Your task to perform on an android device: toggle notifications settings in the gmail app Image 0: 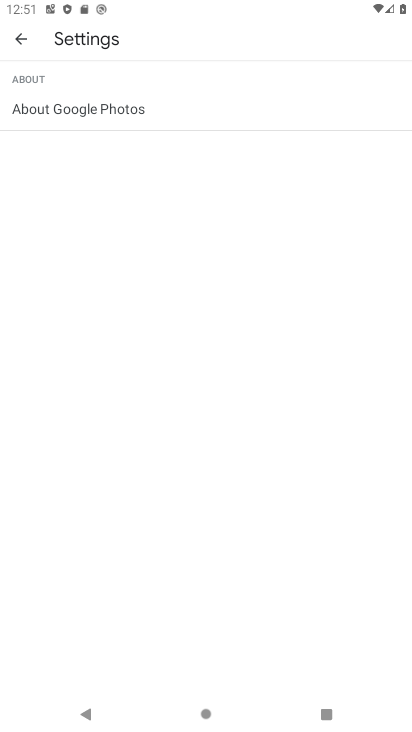
Step 0: press home button
Your task to perform on an android device: toggle notifications settings in the gmail app Image 1: 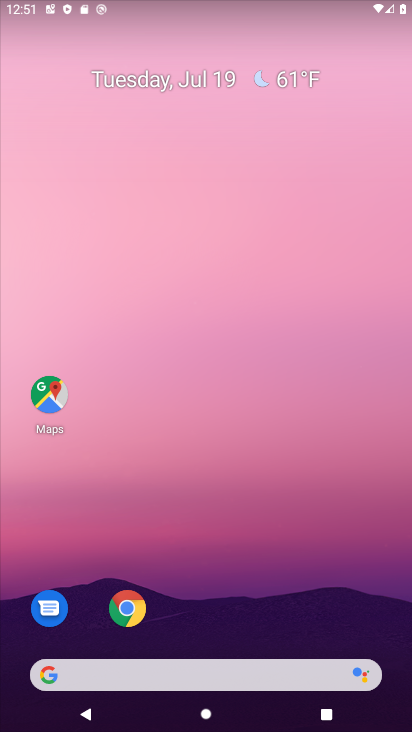
Step 1: drag from (303, 472) to (260, 16)
Your task to perform on an android device: toggle notifications settings in the gmail app Image 2: 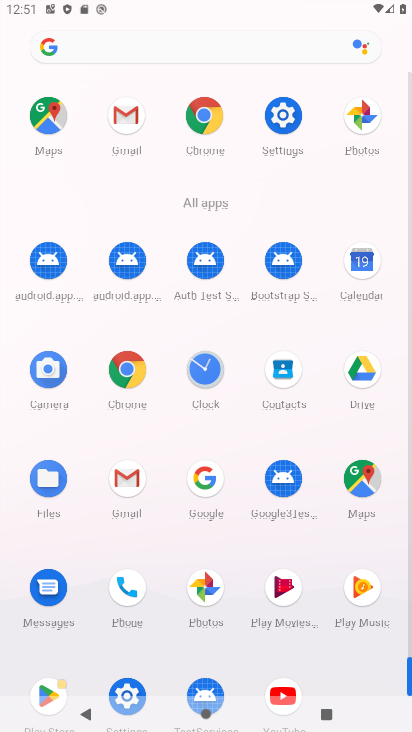
Step 2: click (129, 128)
Your task to perform on an android device: toggle notifications settings in the gmail app Image 3: 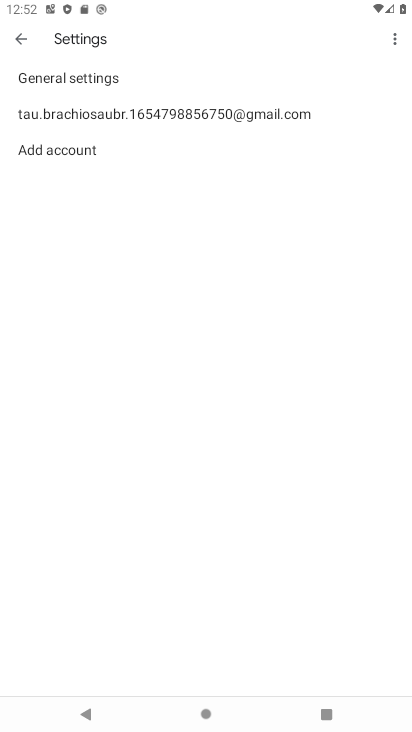
Step 3: click (153, 117)
Your task to perform on an android device: toggle notifications settings in the gmail app Image 4: 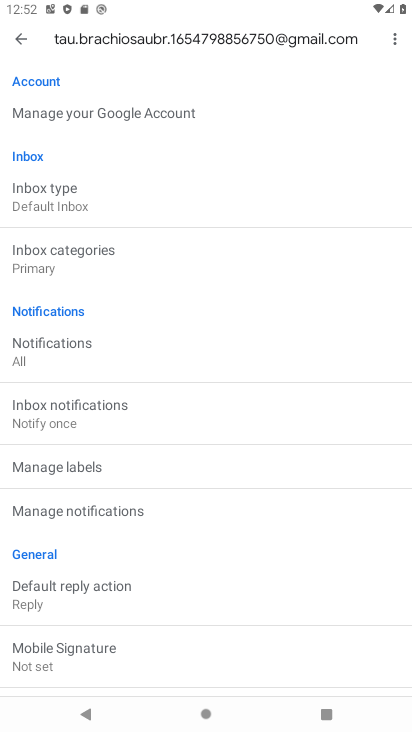
Step 4: click (51, 347)
Your task to perform on an android device: toggle notifications settings in the gmail app Image 5: 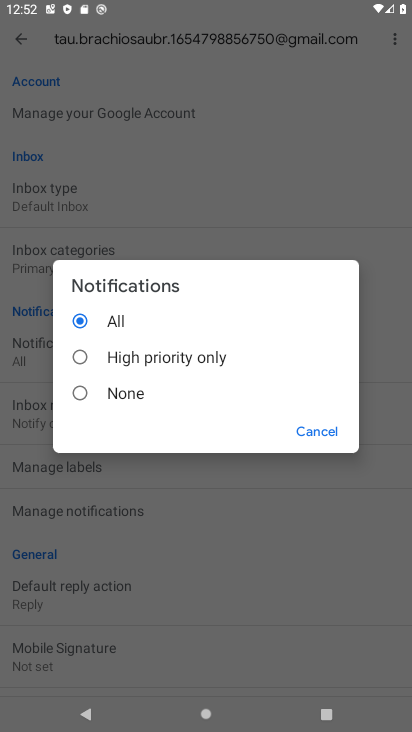
Step 5: click (100, 342)
Your task to perform on an android device: toggle notifications settings in the gmail app Image 6: 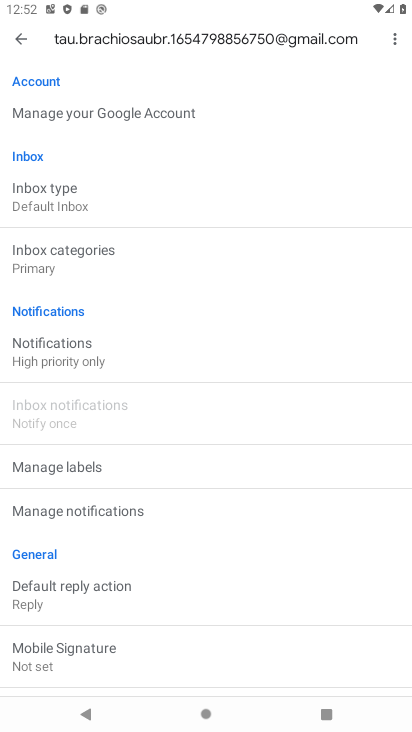
Step 6: task complete